Your task to perform on an android device: turn vacation reply on in the gmail app Image 0: 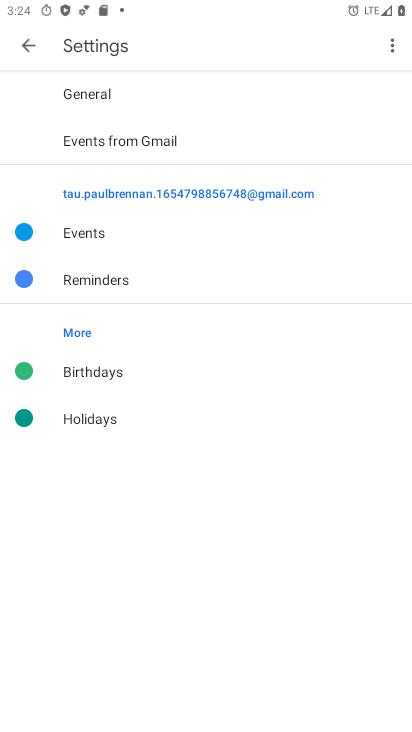
Step 0: press home button
Your task to perform on an android device: turn vacation reply on in the gmail app Image 1: 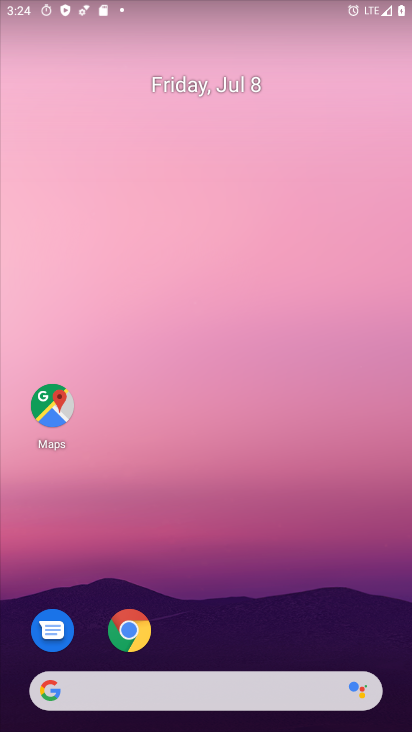
Step 1: drag from (247, 544) to (250, 188)
Your task to perform on an android device: turn vacation reply on in the gmail app Image 2: 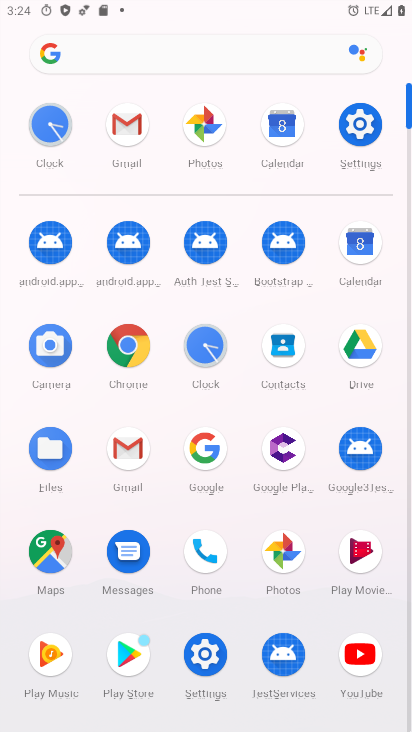
Step 2: click (124, 471)
Your task to perform on an android device: turn vacation reply on in the gmail app Image 3: 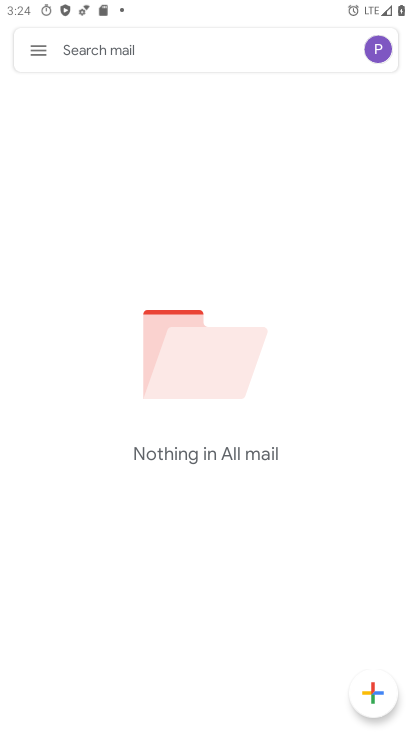
Step 3: click (38, 44)
Your task to perform on an android device: turn vacation reply on in the gmail app Image 4: 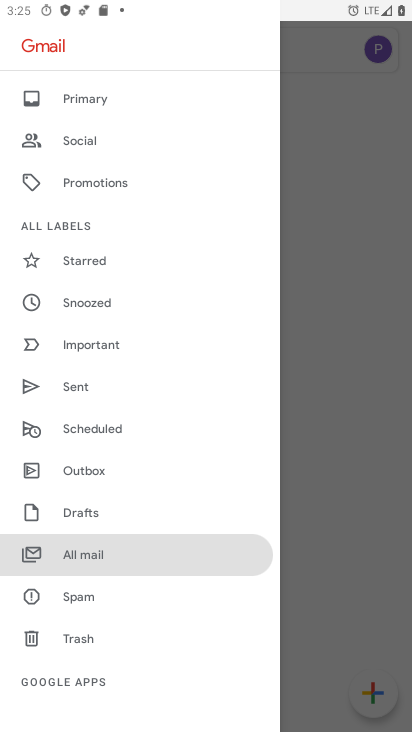
Step 4: drag from (225, 459) to (251, 245)
Your task to perform on an android device: turn vacation reply on in the gmail app Image 5: 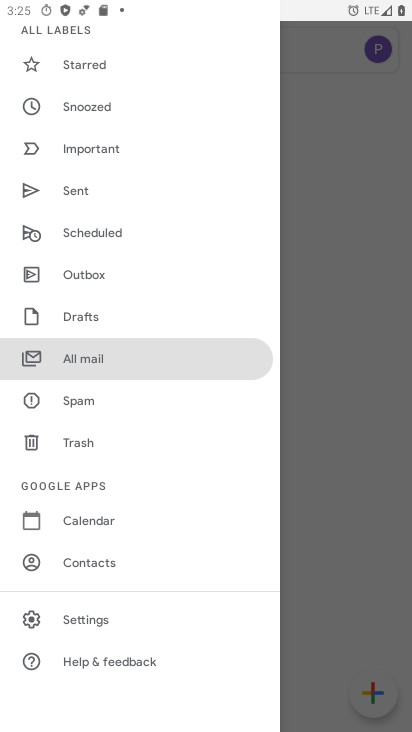
Step 5: click (98, 625)
Your task to perform on an android device: turn vacation reply on in the gmail app Image 6: 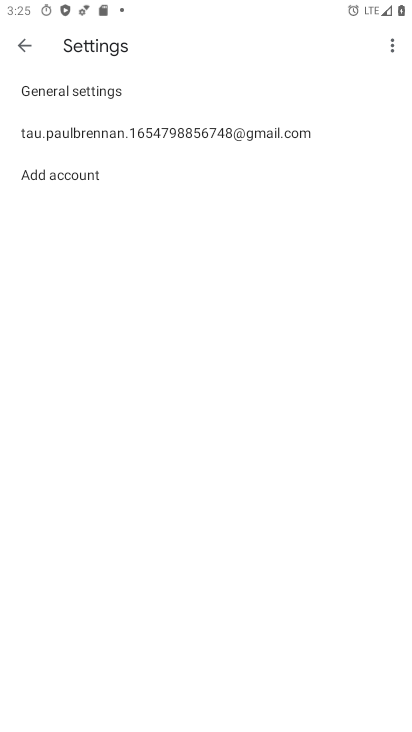
Step 6: click (103, 83)
Your task to perform on an android device: turn vacation reply on in the gmail app Image 7: 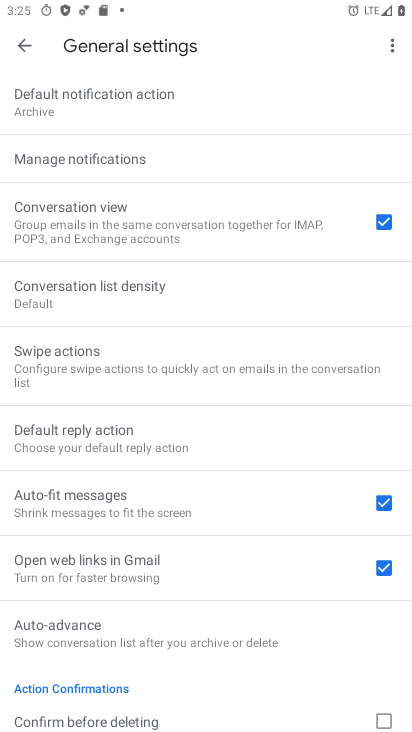
Step 7: task complete